Your task to perform on an android device: open app "Cash App" (install if not already installed) and enter user name: "submodules@gmail.com" and password: "heavenly" Image 0: 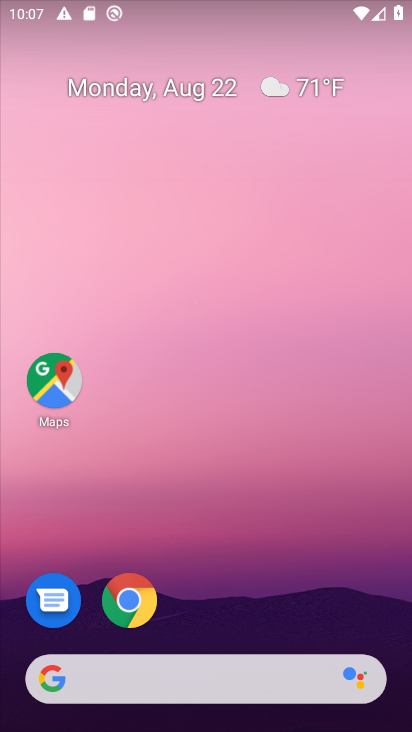
Step 0: drag from (249, 549) to (249, 73)
Your task to perform on an android device: open app "Cash App" (install if not already installed) and enter user name: "submodules@gmail.com" and password: "heavenly" Image 1: 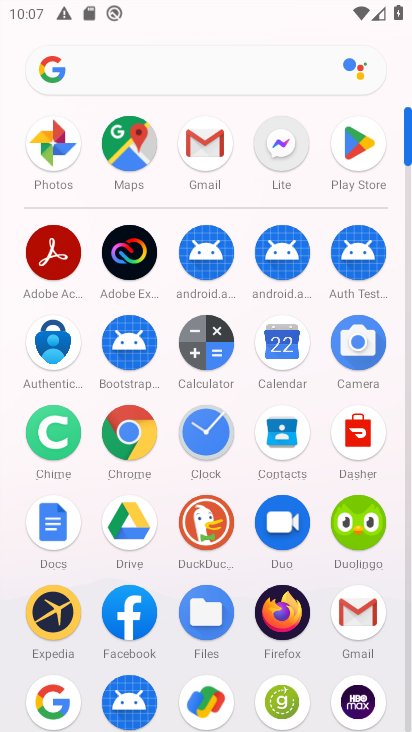
Step 1: click (337, 134)
Your task to perform on an android device: open app "Cash App" (install if not already installed) and enter user name: "submodules@gmail.com" and password: "heavenly" Image 2: 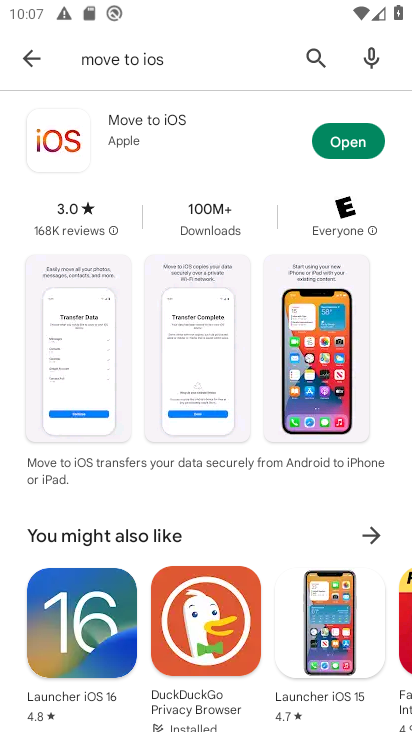
Step 2: click (312, 62)
Your task to perform on an android device: open app "Cash App" (install if not already installed) and enter user name: "submodules@gmail.com" and password: "heavenly" Image 3: 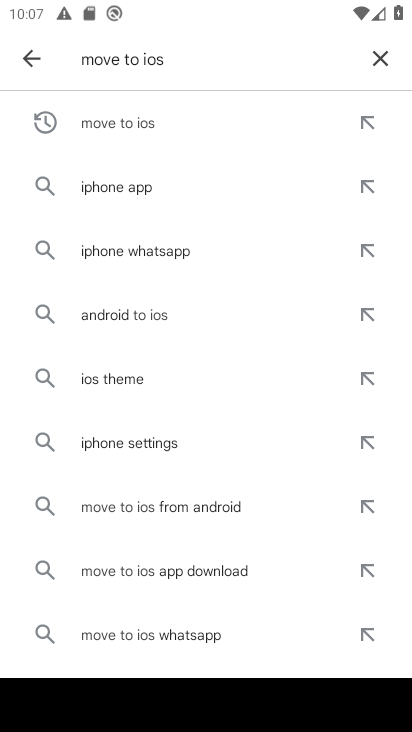
Step 3: click (371, 49)
Your task to perform on an android device: open app "Cash App" (install if not already installed) and enter user name: "submodules@gmail.com" and password: "heavenly" Image 4: 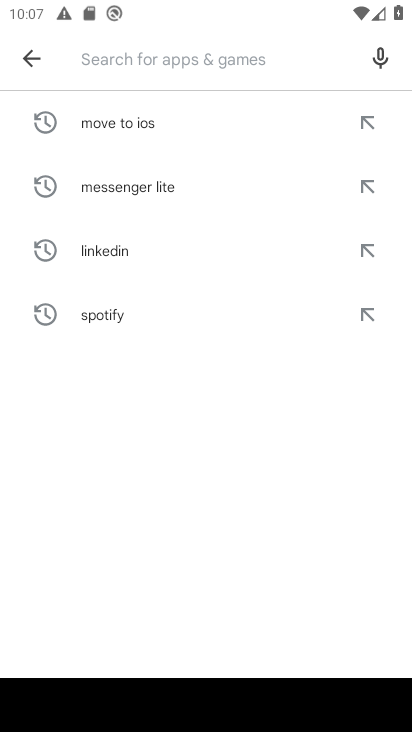
Step 4: type "Cash App"
Your task to perform on an android device: open app "Cash App" (install if not already installed) and enter user name: "submodules@gmail.com" and password: "heavenly" Image 5: 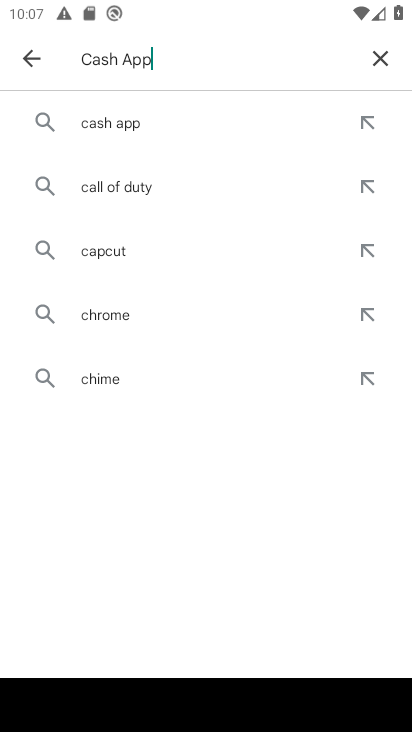
Step 5: type ""
Your task to perform on an android device: open app "Cash App" (install if not already installed) and enter user name: "submodules@gmail.com" and password: "heavenly" Image 6: 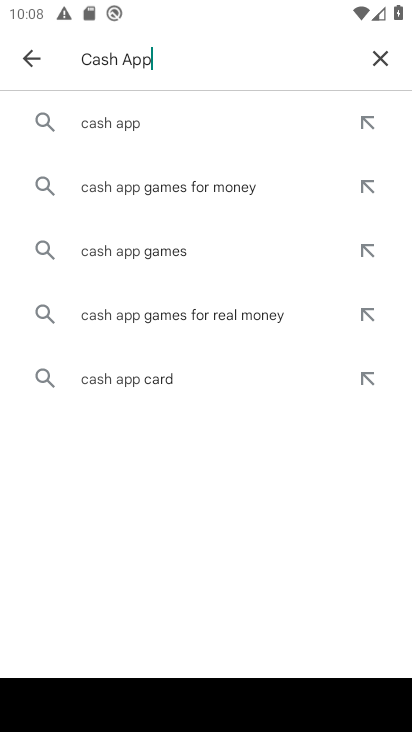
Step 6: click (149, 124)
Your task to perform on an android device: open app "Cash App" (install if not already installed) and enter user name: "submodules@gmail.com" and password: "heavenly" Image 7: 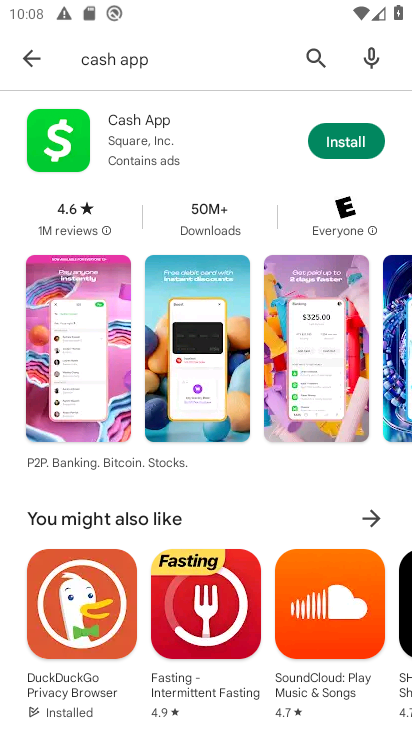
Step 7: click (332, 141)
Your task to perform on an android device: open app "Cash App" (install if not already installed) and enter user name: "submodules@gmail.com" and password: "heavenly" Image 8: 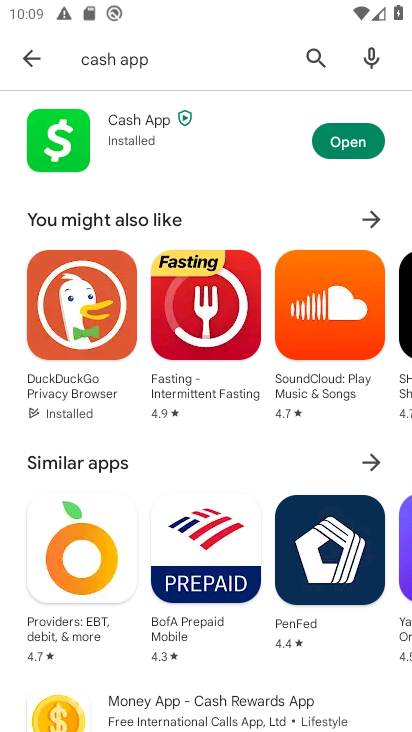
Step 8: click (344, 152)
Your task to perform on an android device: open app "Cash App" (install if not already installed) and enter user name: "submodules@gmail.com" and password: "heavenly" Image 9: 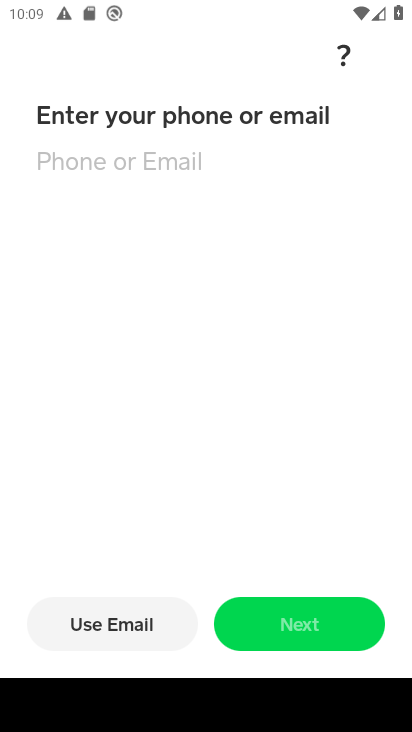
Step 9: task complete